Your task to perform on an android device: set the timer Image 0: 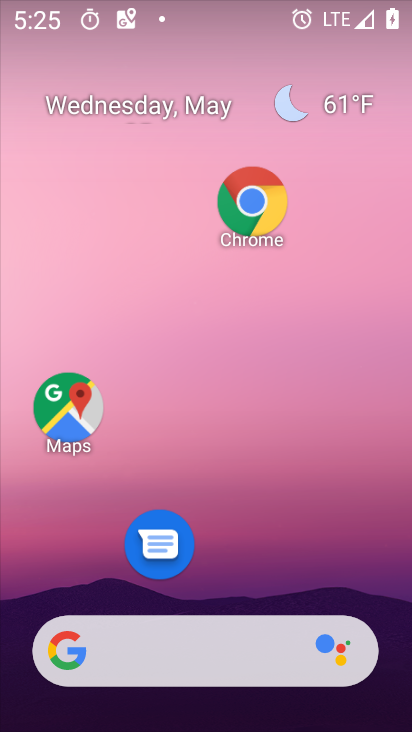
Step 0: drag from (219, 618) to (177, 276)
Your task to perform on an android device: set the timer Image 1: 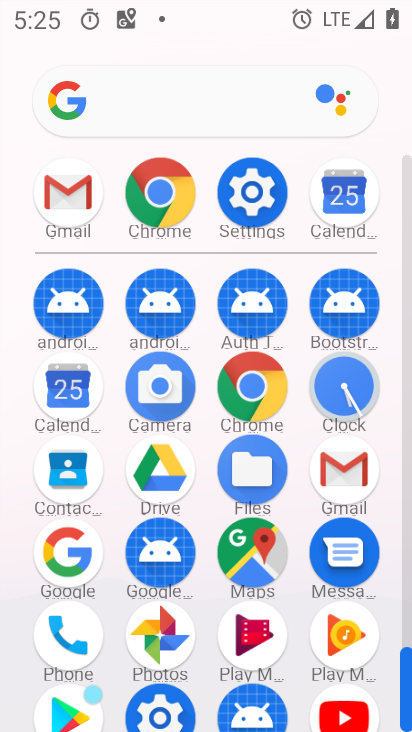
Step 1: click (355, 385)
Your task to perform on an android device: set the timer Image 2: 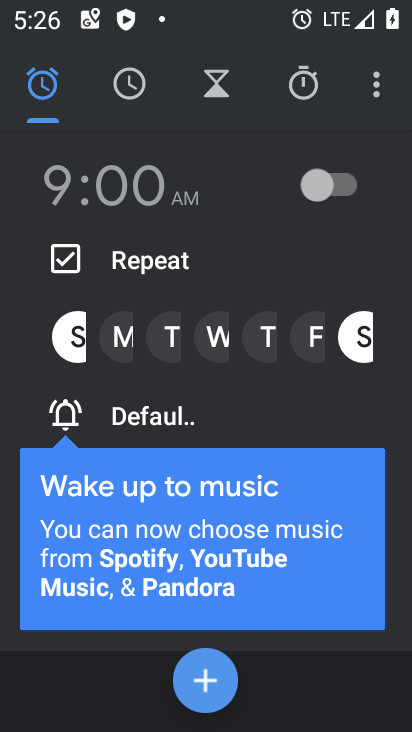
Step 2: click (244, 82)
Your task to perform on an android device: set the timer Image 3: 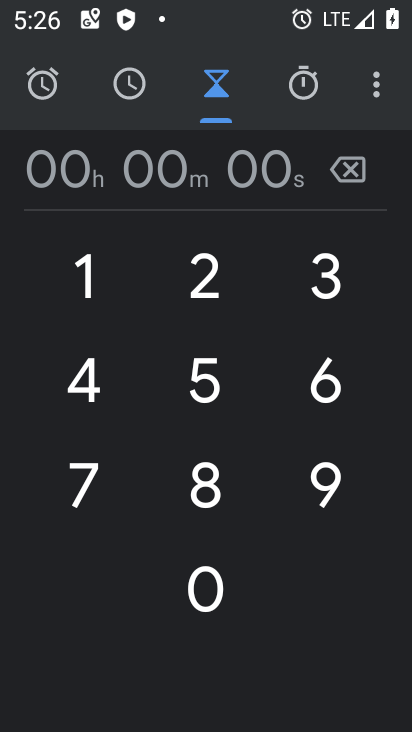
Step 3: click (219, 589)
Your task to perform on an android device: set the timer Image 4: 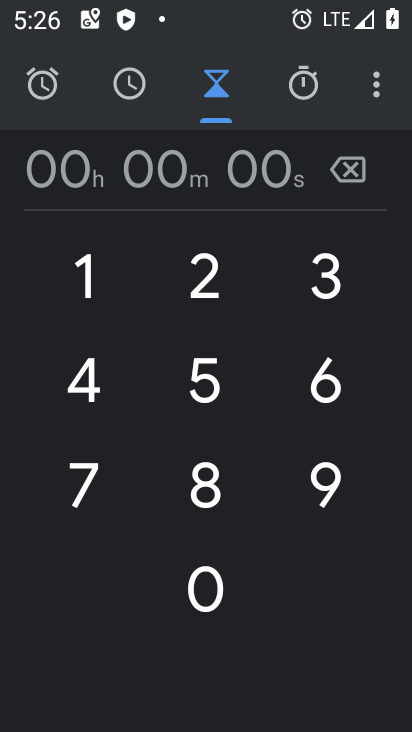
Step 4: click (215, 373)
Your task to perform on an android device: set the timer Image 5: 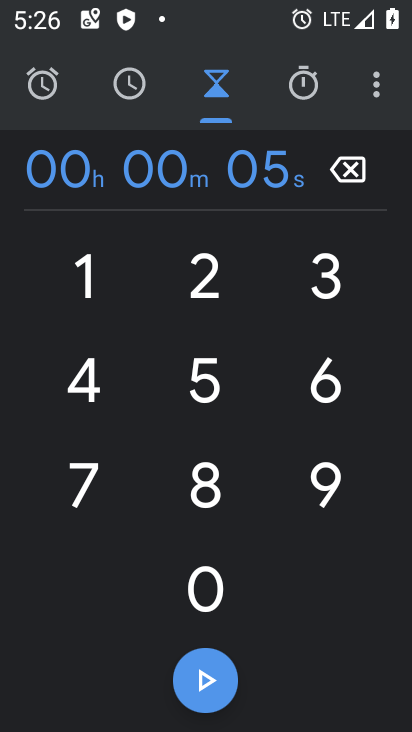
Step 5: click (218, 601)
Your task to perform on an android device: set the timer Image 6: 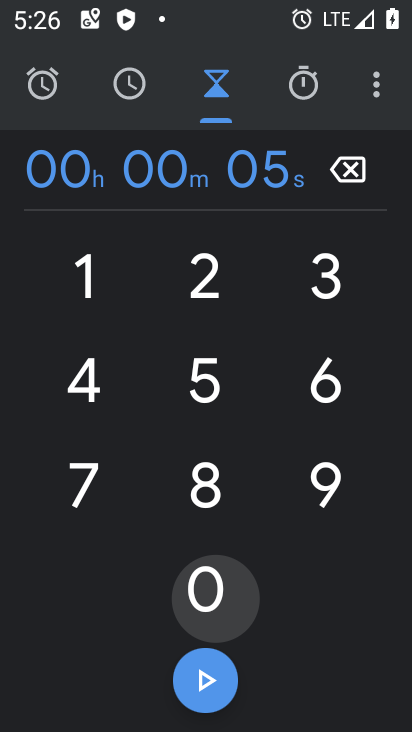
Step 6: click (218, 601)
Your task to perform on an android device: set the timer Image 7: 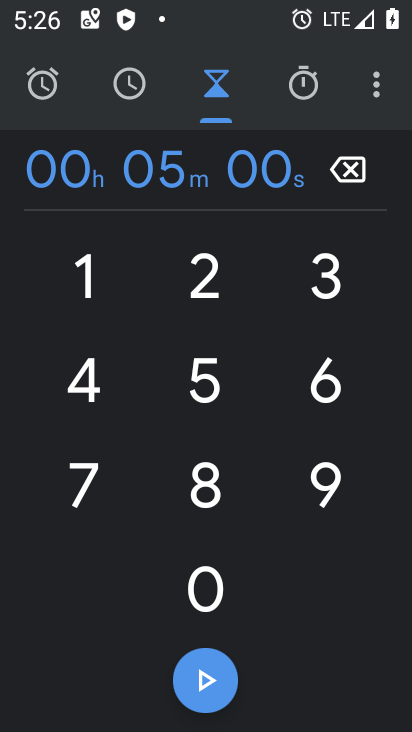
Step 7: click (212, 669)
Your task to perform on an android device: set the timer Image 8: 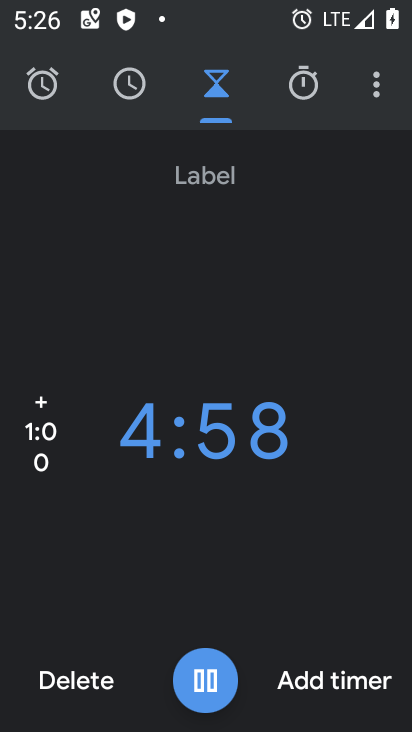
Step 8: task complete